Your task to perform on an android device: see sites visited before in the chrome app Image 0: 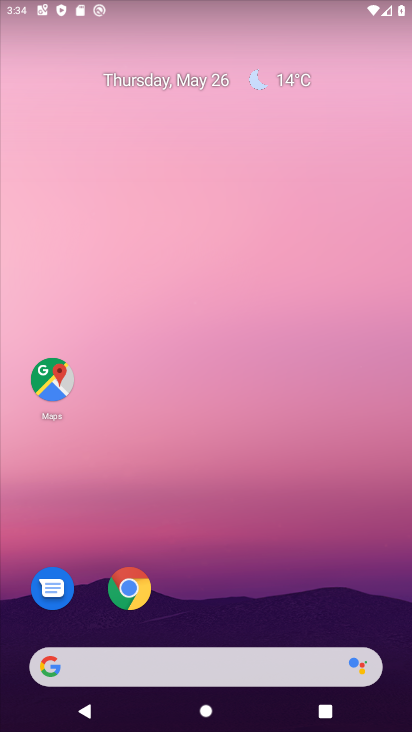
Step 0: drag from (262, 610) to (302, 103)
Your task to perform on an android device: see sites visited before in the chrome app Image 1: 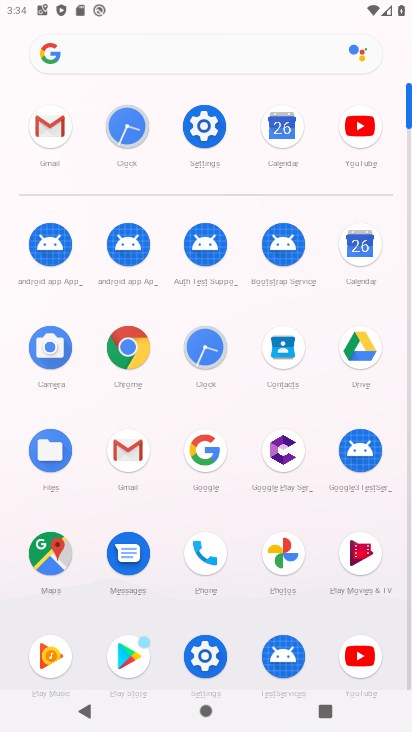
Step 1: click (138, 342)
Your task to perform on an android device: see sites visited before in the chrome app Image 2: 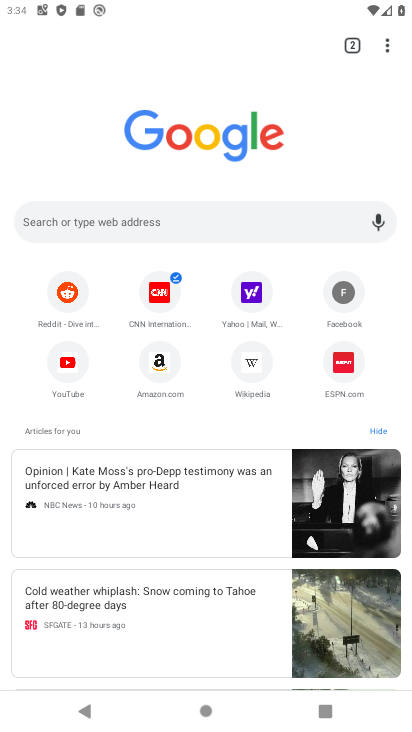
Step 2: click (394, 43)
Your task to perform on an android device: see sites visited before in the chrome app Image 3: 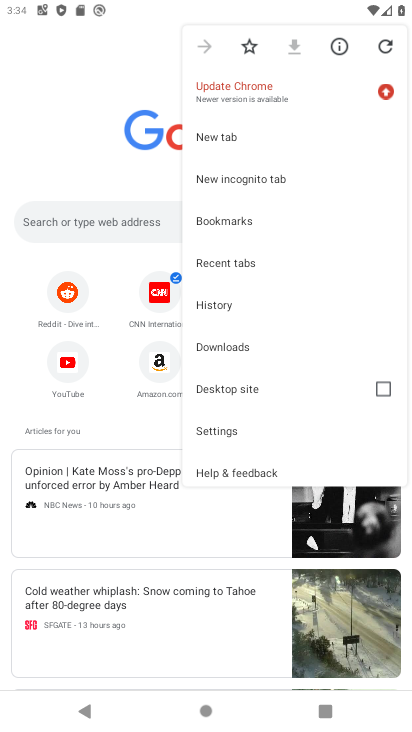
Step 3: click (274, 269)
Your task to perform on an android device: see sites visited before in the chrome app Image 4: 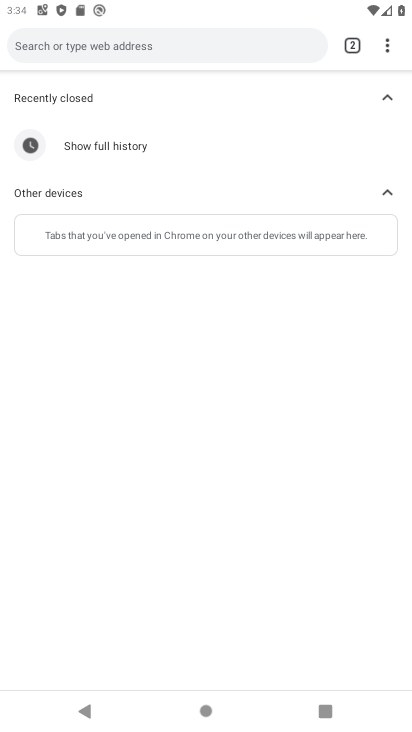
Step 4: task complete